Your task to perform on an android device: turn on the 24-hour format for clock Image 0: 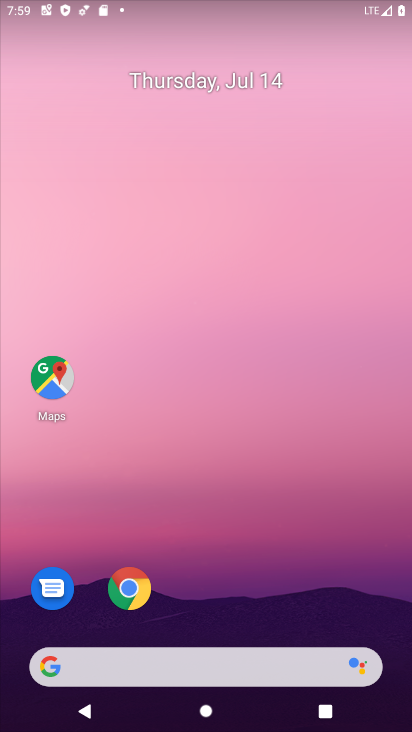
Step 0: drag from (393, 660) to (139, 0)
Your task to perform on an android device: turn on the 24-hour format for clock Image 1: 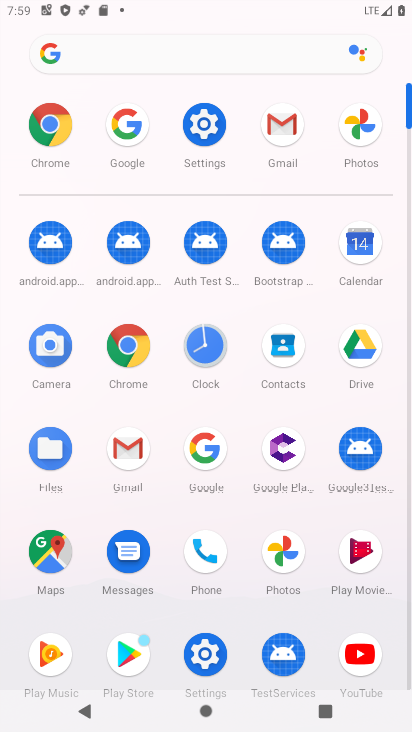
Step 1: click (218, 356)
Your task to perform on an android device: turn on the 24-hour format for clock Image 2: 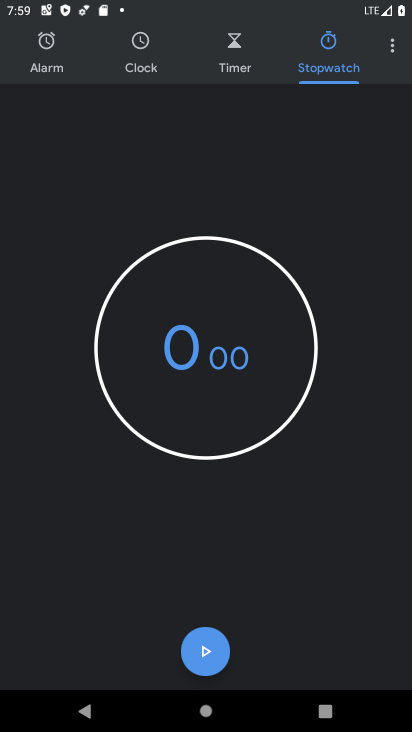
Step 2: click (383, 50)
Your task to perform on an android device: turn on the 24-hour format for clock Image 3: 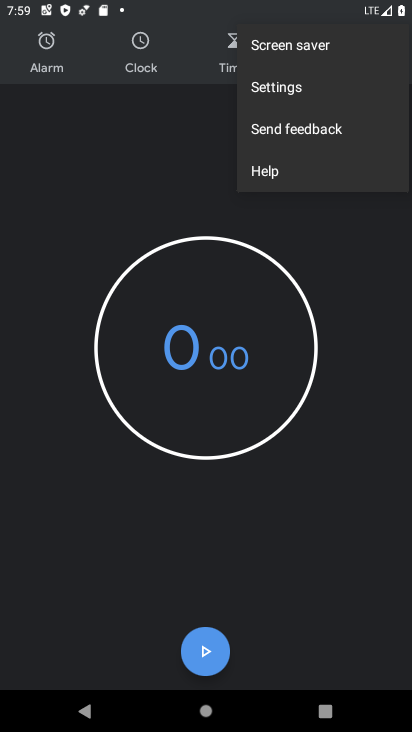
Step 3: click (297, 83)
Your task to perform on an android device: turn on the 24-hour format for clock Image 4: 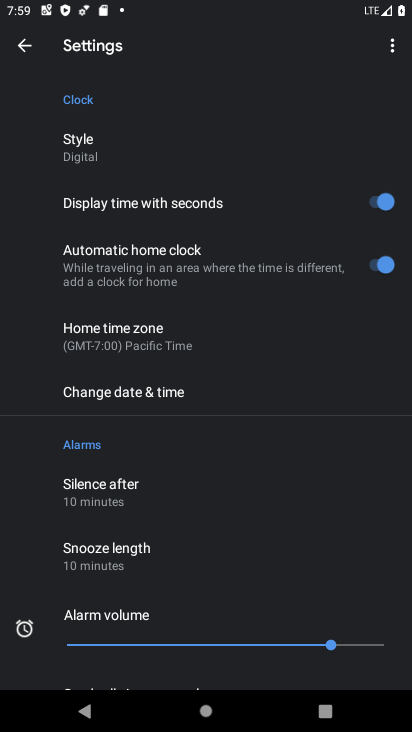
Step 4: click (133, 394)
Your task to perform on an android device: turn on the 24-hour format for clock Image 5: 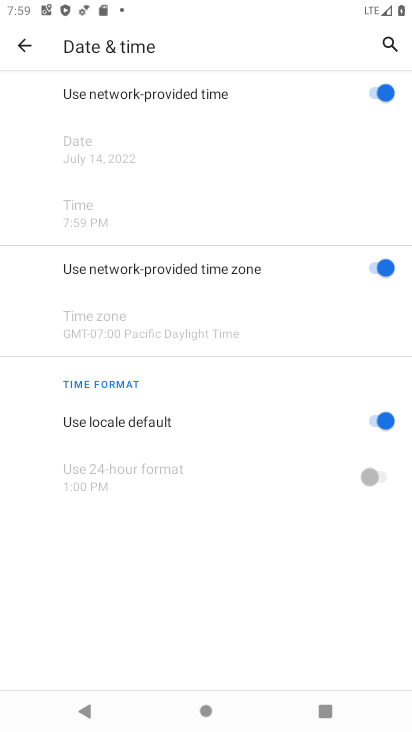
Step 5: task complete